Your task to perform on an android device: turn on data saver in the chrome app Image 0: 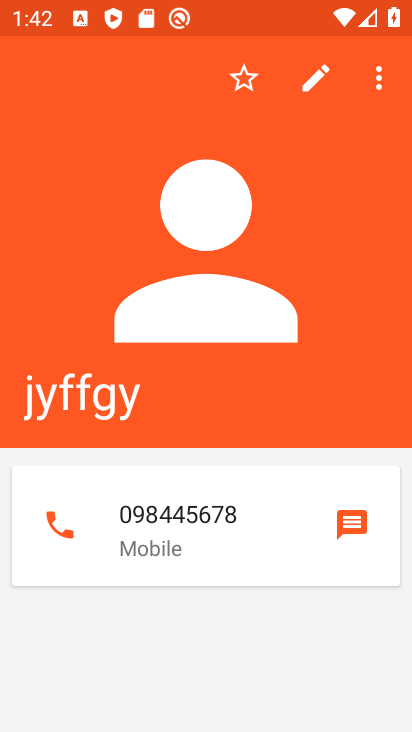
Step 0: press home button
Your task to perform on an android device: turn on data saver in the chrome app Image 1: 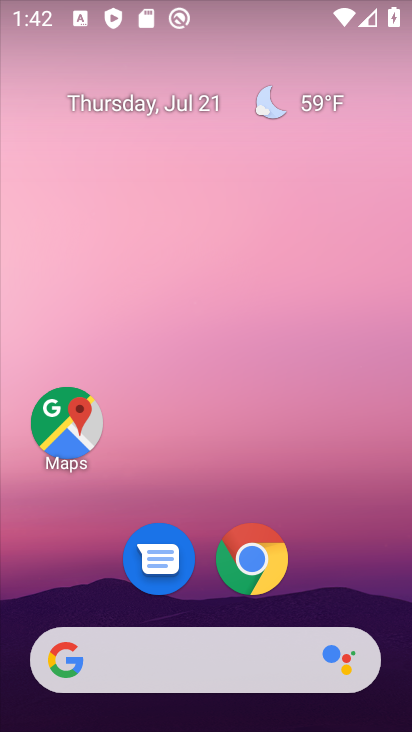
Step 1: drag from (256, 658) to (227, 200)
Your task to perform on an android device: turn on data saver in the chrome app Image 2: 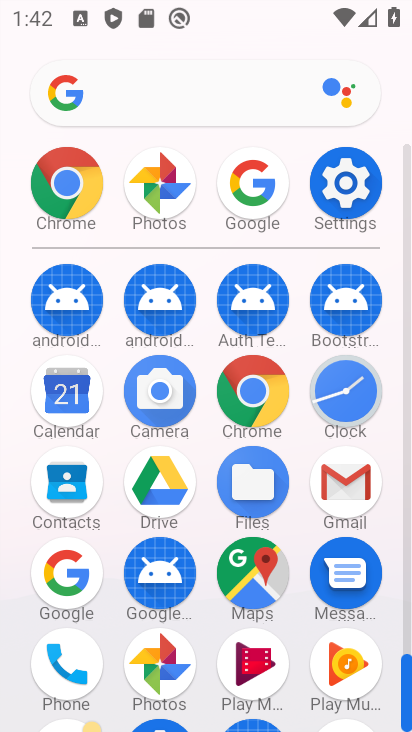
Step 2: click (255, 374)
Your task to perform on an android device: turn on data saver in the chrome app Image 3: 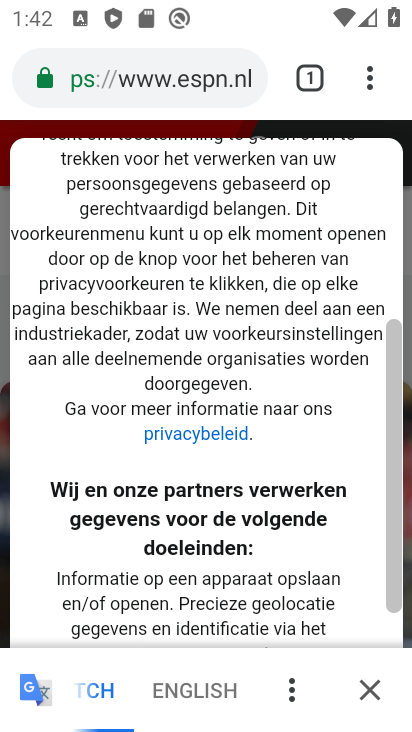
Step 3: click (357, 76)
Your task to perform on an android device: turn on data saver in the chrome app Image 4: 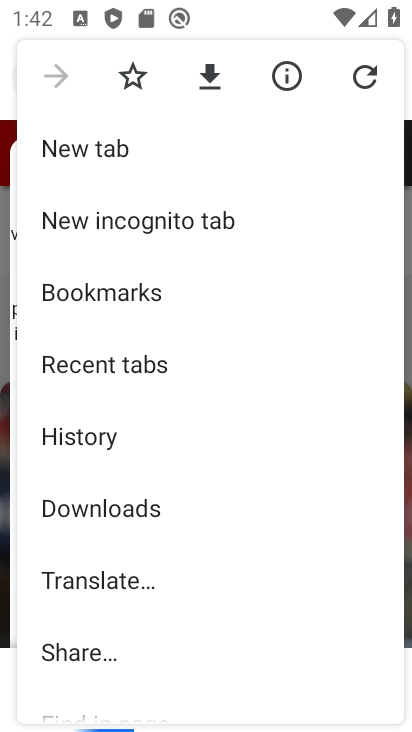
Step 4: drag from (228, 503) to (335, 199)
Your task to perform on an android device: turn on data saver in the chrome app Image 5: 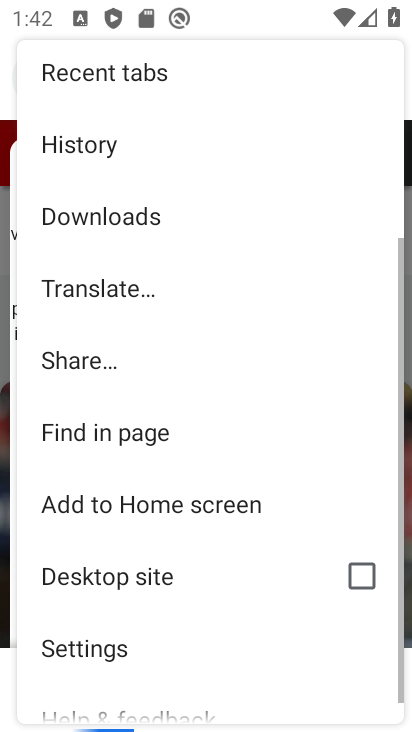
Step 5: drag from (153, 591) to (120, 349)
Your task to perform on an android device: turn on data saver in the chrome app Image 6: 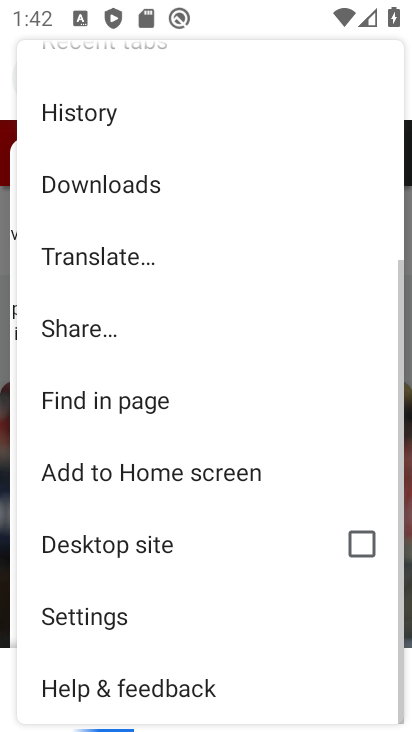
Step 6: click (89, 631)
Your task to perform on an android device: turn on data saver in the chrome app Image 7: 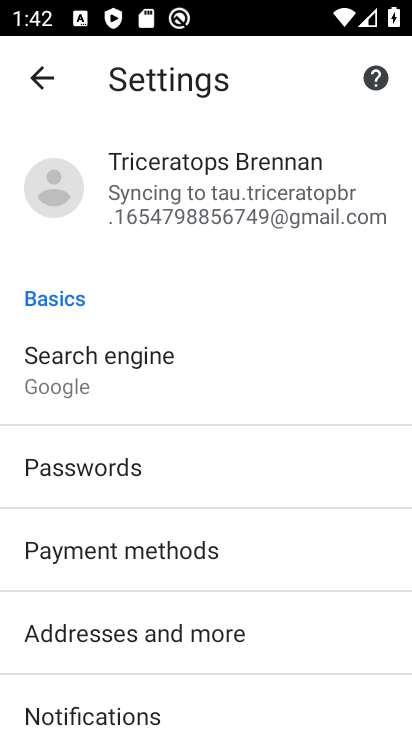
Step 7: drag from (112, 567) to (184, 113)
Your task to perform on an android device: turn on data saver in the chrome app Image 8: 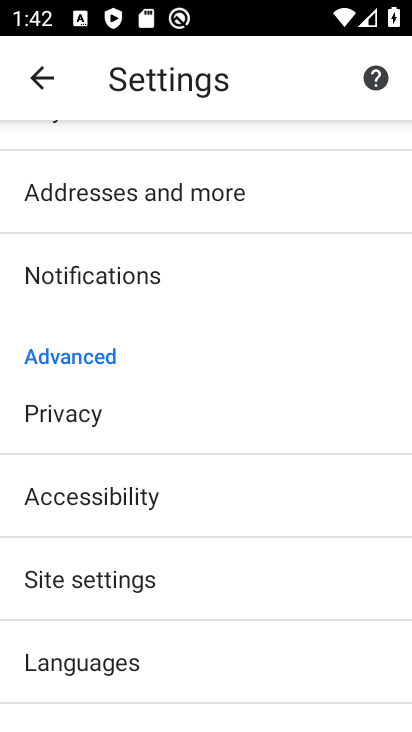
Step 8: drag from (192, 532) to (158, 97)
Your task to perform on an android device: turn on data saver in the chrome app Image 9: 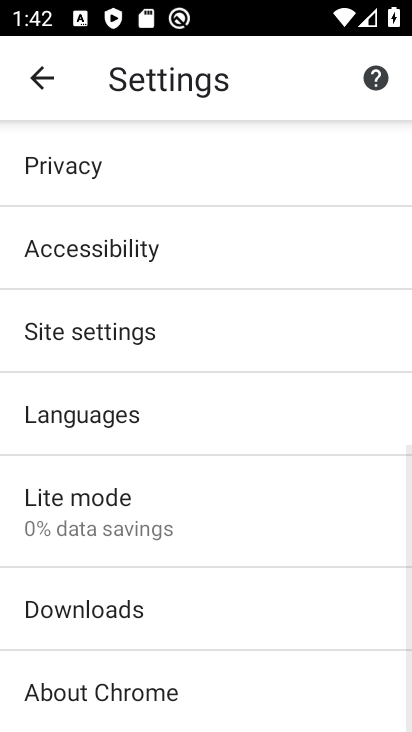
Step 9: click (181, 522)
Your task to perform on an android device: turn on data saver in the chrome app Image 10: 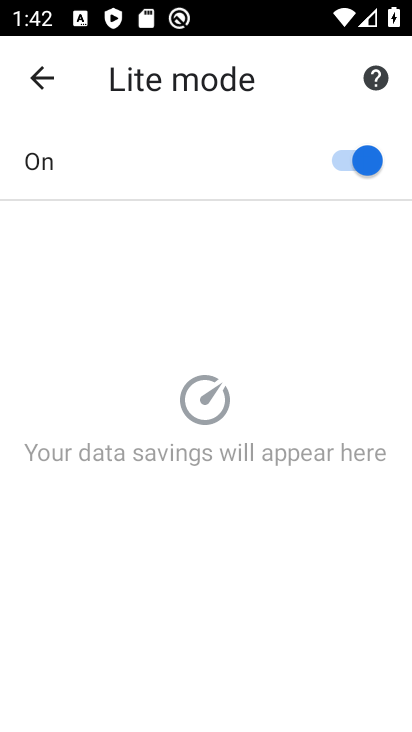
Step 10: task complete